Your task to perform on an android device: Open Google Chrome and open the bookmarks view Image 0: 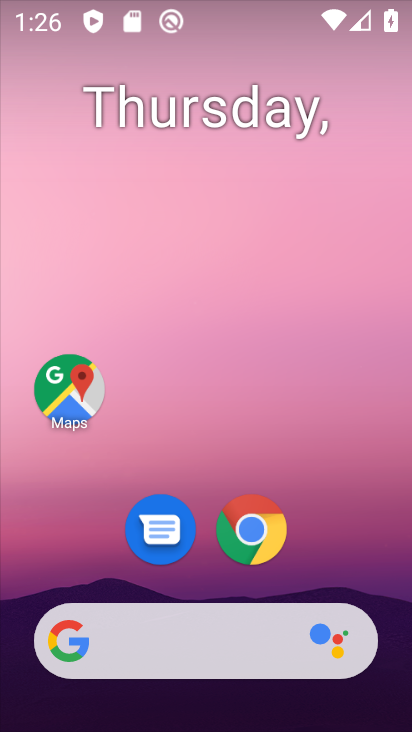
Step 0: click (251, 539)
Your task to perform on an android device: Open Google Chrome and open the bookmarks view Image 1: 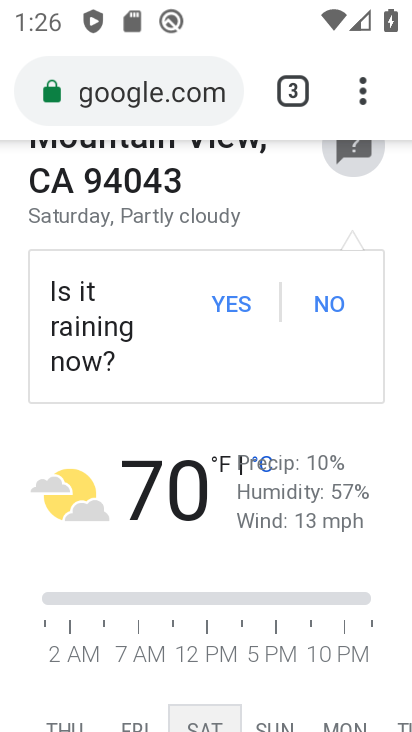
Step 1: click (360, 97)
Your task to perform on an android device: Open Google Chrome and open the bookmarks view Image 2: 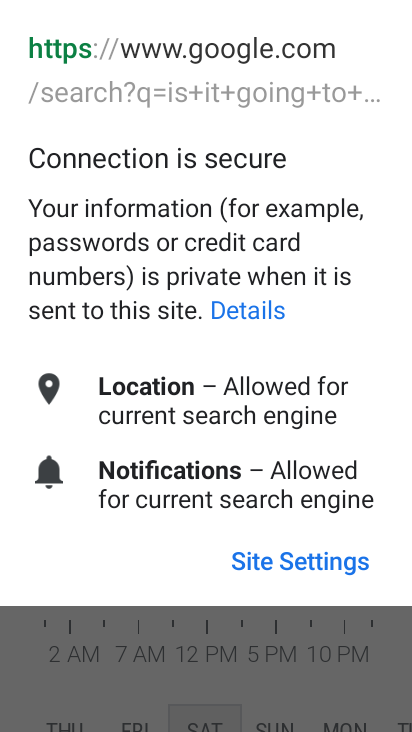
Step 2: click (227, 626)
Your task to perform on an android device: Open Google Chrome and open the bookmarks view Image 3: 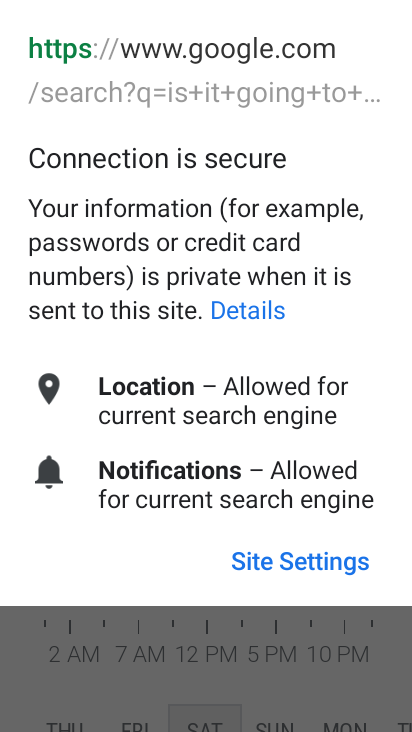
Step 3: click (153, 644)
Your task to perform on an android device: Open Google Chrome and open the bookmarks view Image 4: 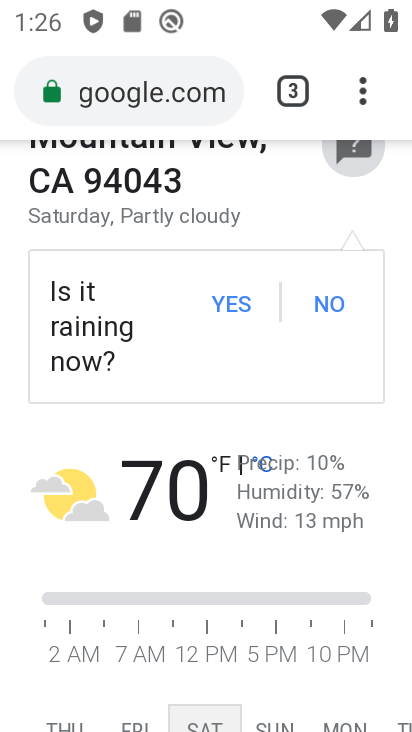
Step 4: task complete